Your task to perform on an android device: turn off translation in the chrome app Image 0: 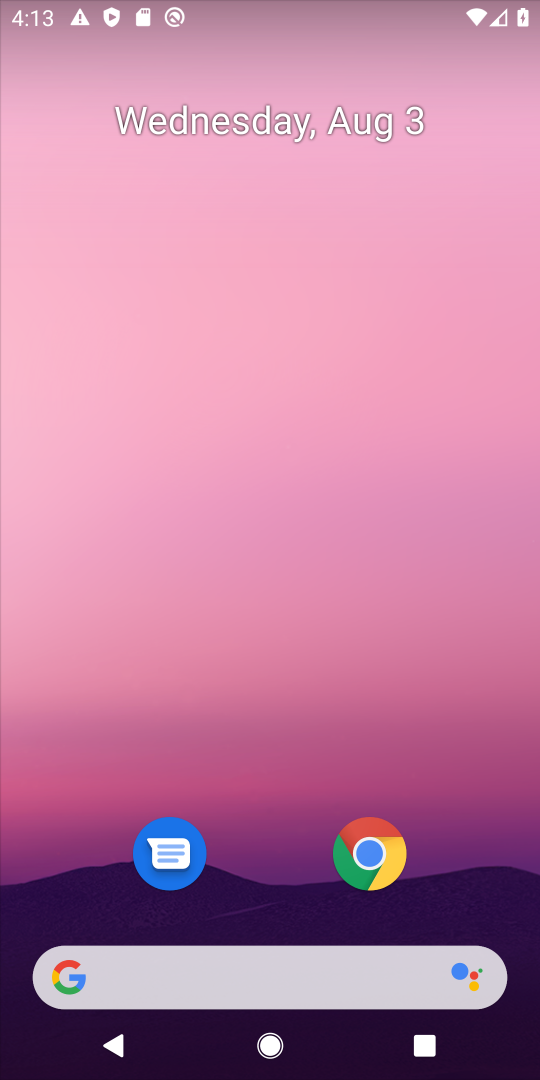
Step 0: click (372, 847)
Your task to perform on an android device: turn off translation in the chrome app Image 1: 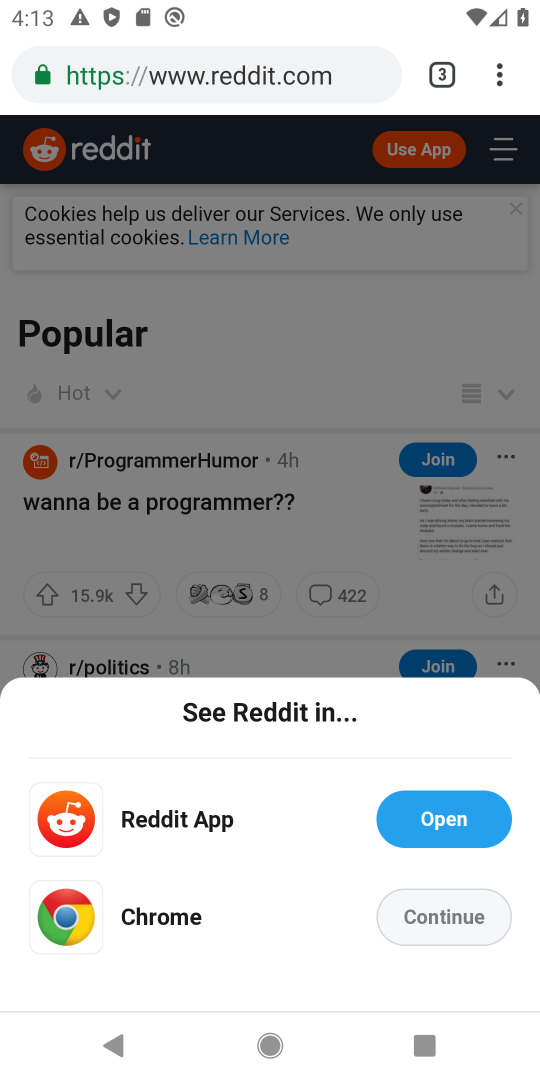
Step 1: click (503, 76)
Your task to perform on an android device: turn off translation in the chrome app Image 2: 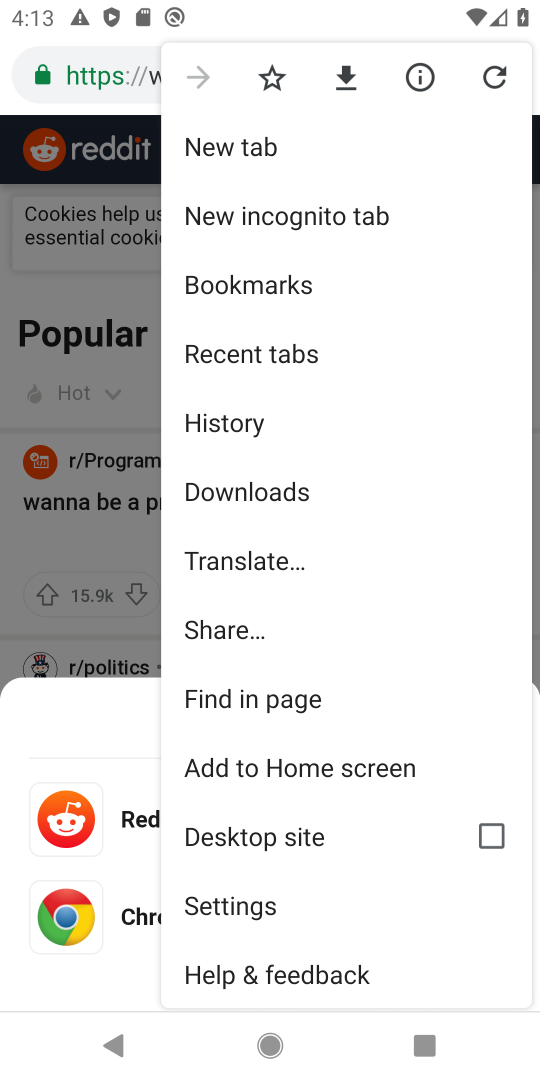
Step 2: click (242, 904)
Your task to perform on an android device: turn off translation in the chrome app Image 3: 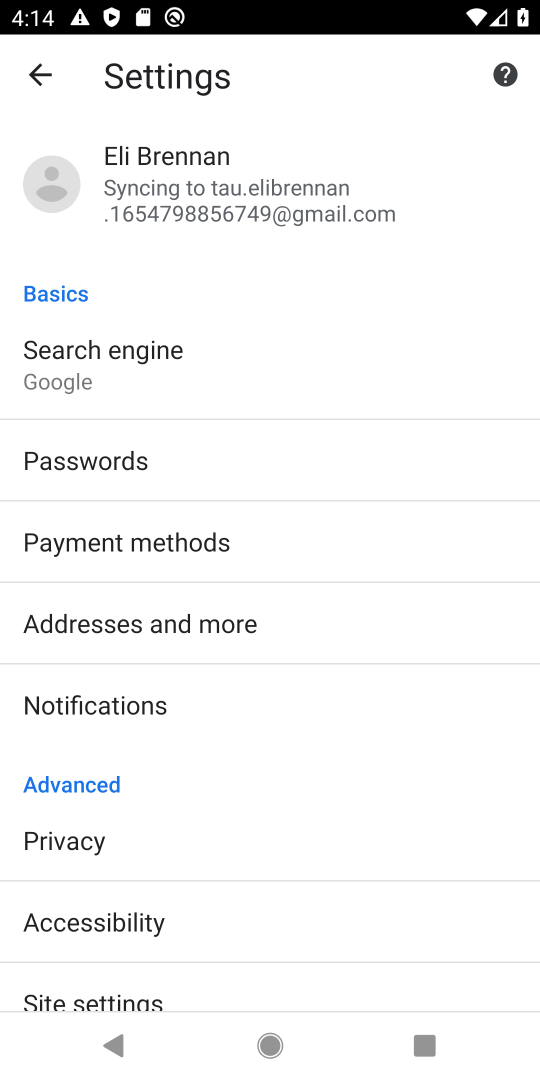
Step 3: drag from (102, 935) to (115, 641)
Your task to perform on an android device: turn off translation in the chrome app Image 4: 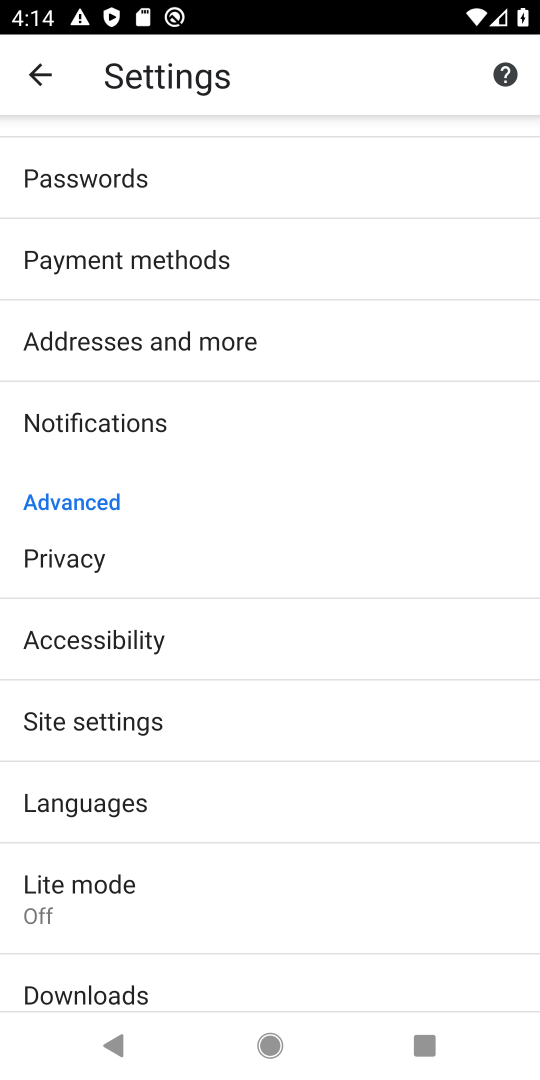
Step 4: click (99, 797)
Your task to perform on an android device: turn off translation in the chrome app Image 5: 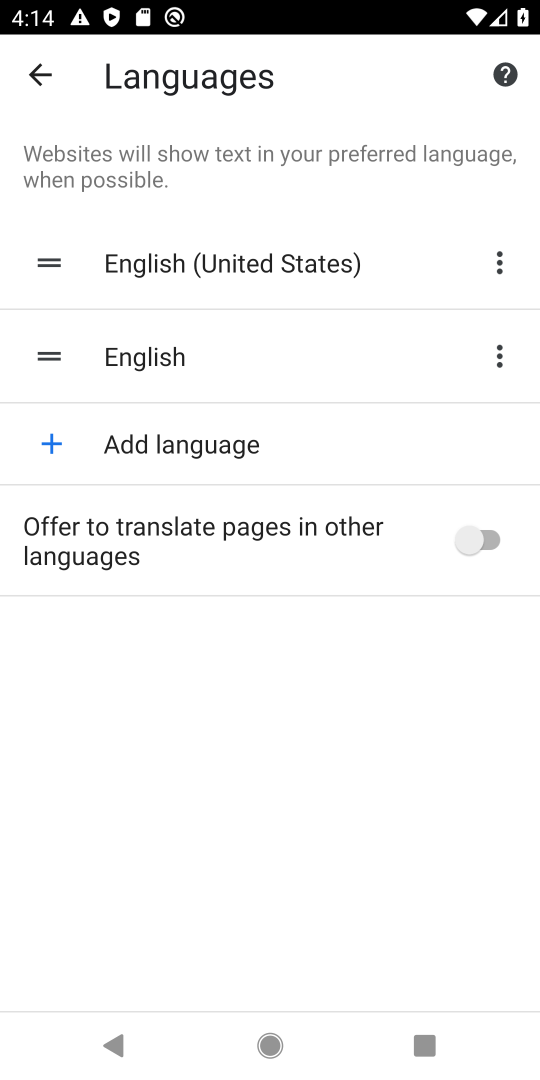
Step 5: task complete